Your task to perform on an android device: Open the map Image 0: 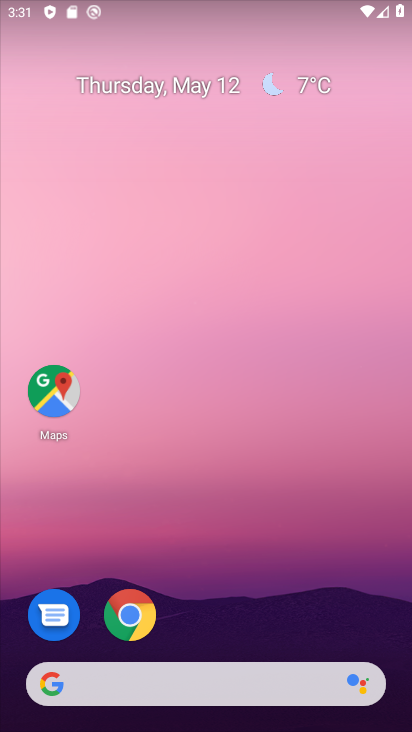
Step 0: drag from (270, 616) to (281, 430)
Your task to perform on an android device: Open the map Image 1: 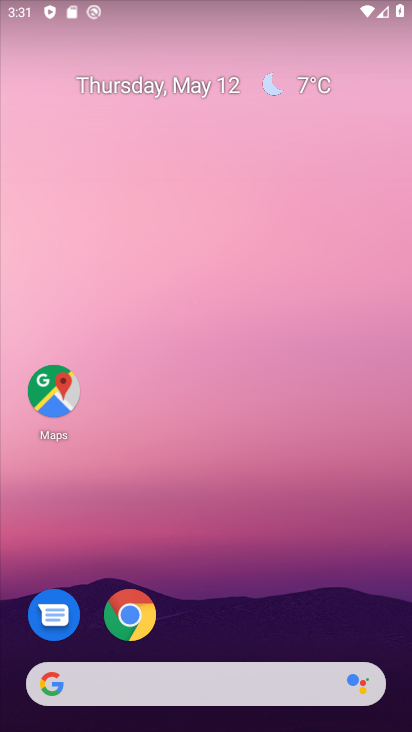
Step 1: click (52, 388)
Your task to perform on an android device: Open the map Image 2: 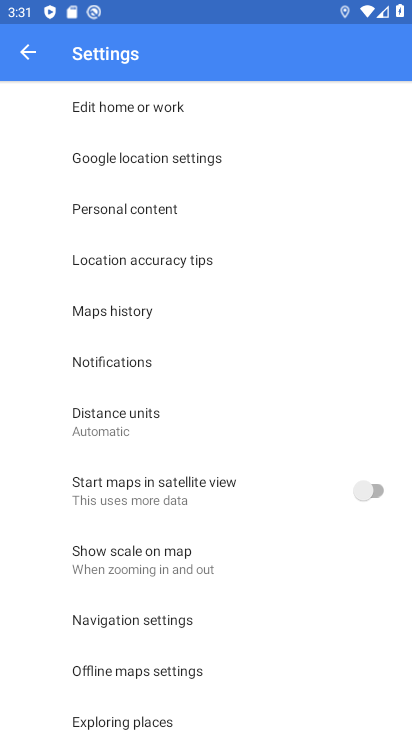
Step 2: click (35, 63)
Your task to perform on an android device: Open the map Image 3: 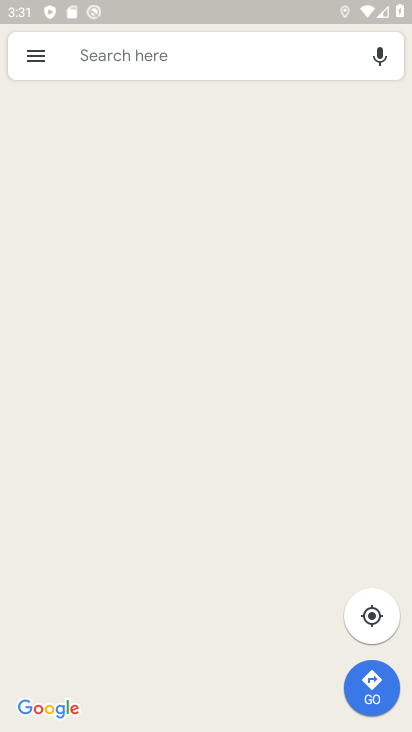
Step 3: task complete